Your task to perform on an android device: Go to Google maps Image 0: 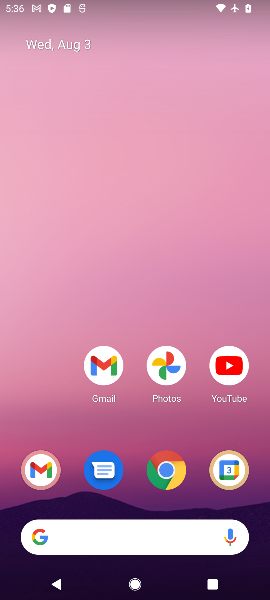
Step 0: drag from (66, 395) to (113, 26)
Your task to perform on an android device: Go to Google maps Image 1: 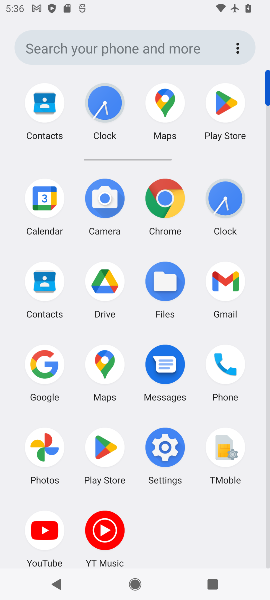
Step 1: click (104, 364)
Your task to perform on an android device: Go to Google maps Image 2: 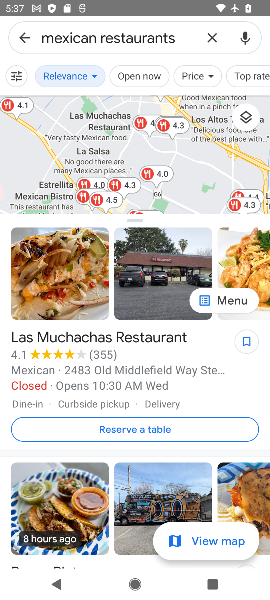
Step 2: task complete